Your task to perform on an android device: Open location settings Image 0: 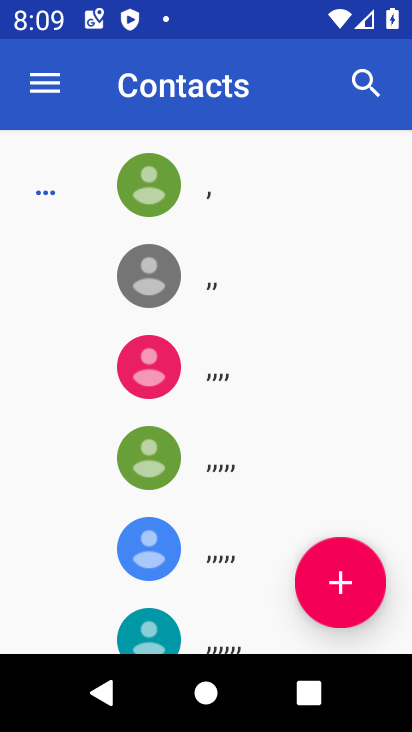
Step 0: press home button
Your task to perform on an android device: Open location settings Image 1: 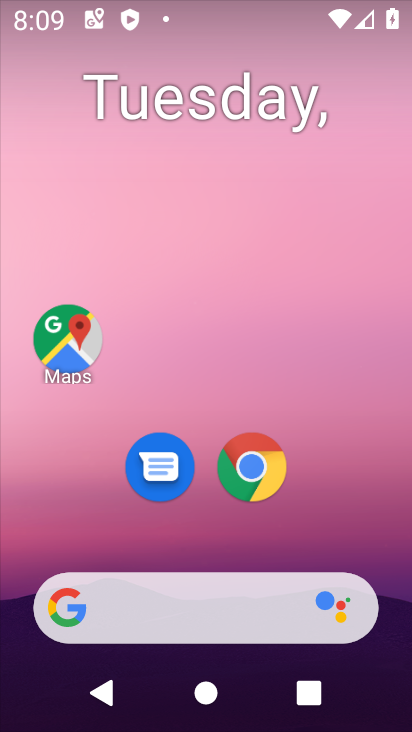
Step 1: drag from (352, 517) to (281, 49)
Your task to perform on an android device: Open location settings Image 2: 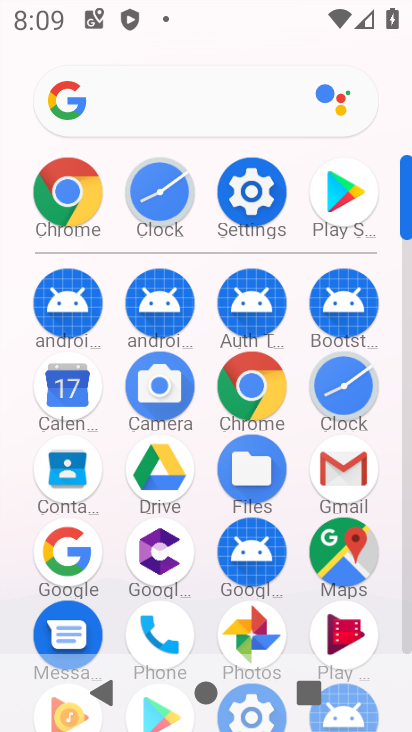
Step 2: click (406, 585)
Your task to perform on an android device: Open location settings Image 3: 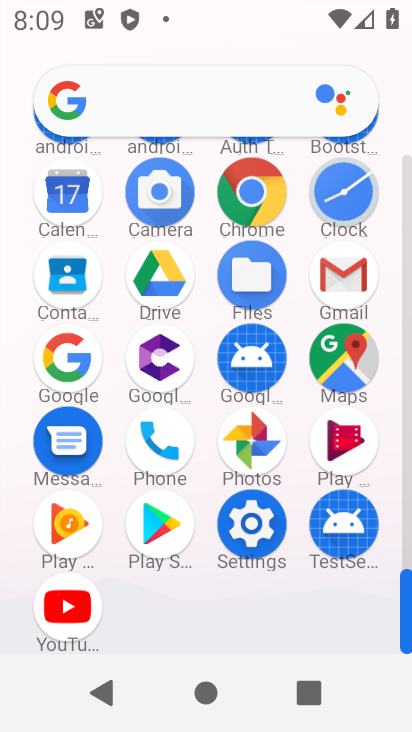
Step 3: click (250, 519)
Your task to perform on an android device: Open location settings Image 4: 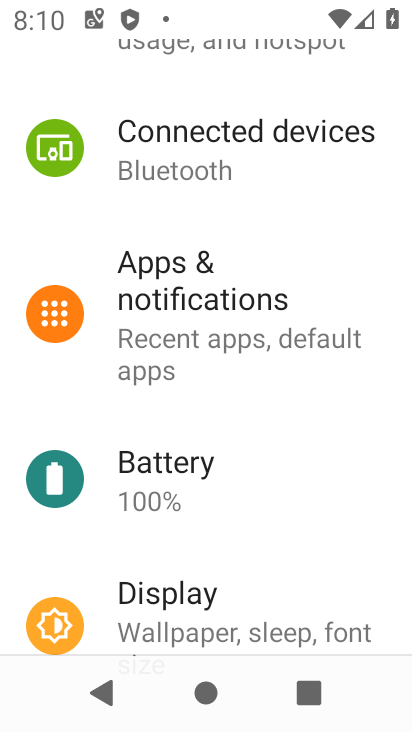
Step 4: drag from (277, 556) to (274, 49)
Your task to perform on an android device: Open location settings Image 5: 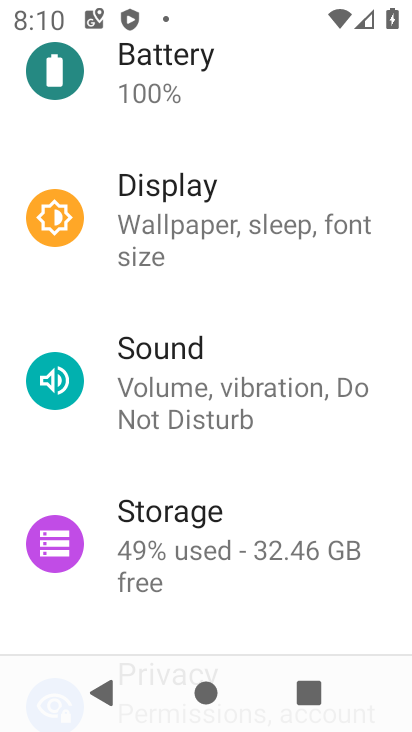
Step 5: drag from (282, 610) to (266, 116)
Your task to perform on an android device: Open location settings Image 6: 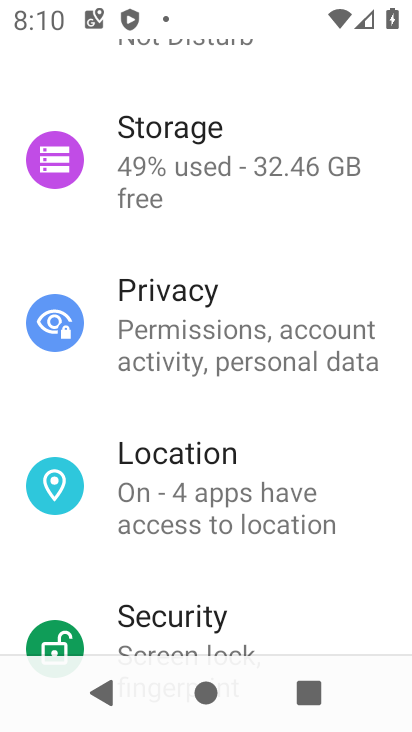
Step 6: click (279, 520)
Your task to perform on an android device: Open location settings Image 7: 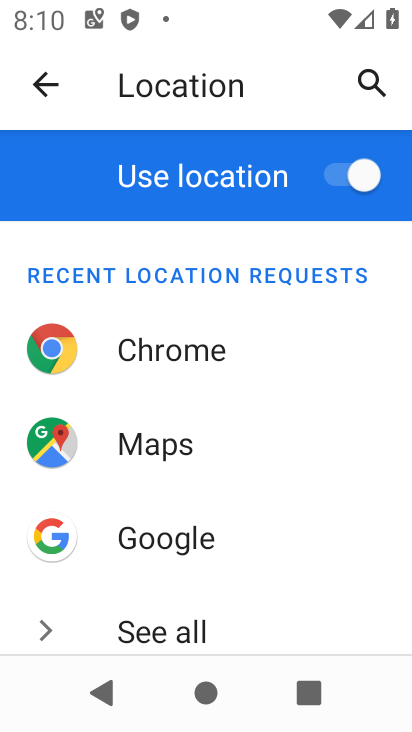
Step 7: task complete